Your task to perform on an android device: Open Chrome and go to settings Image 0: 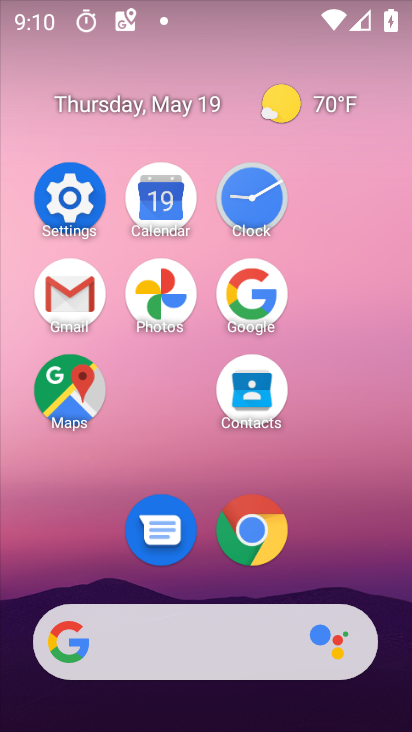
Step 0: click (275, 528)
Your task to perform on an android device: Open Chrome and go to settings Image 1: 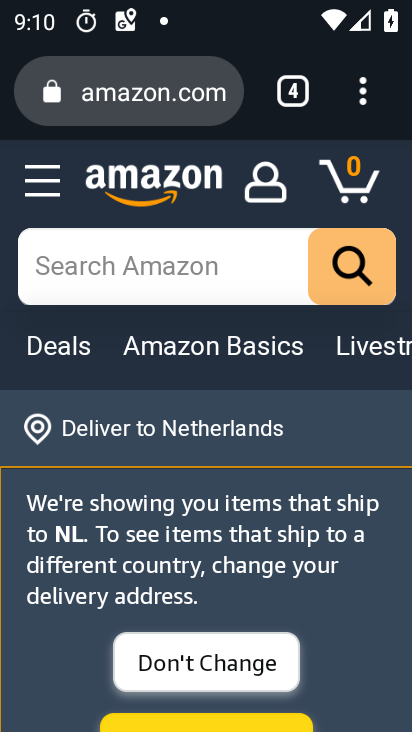
Step 1: click (369, 94)
Your task to perform on an android device: Open Chrome and go to settings Image 2: 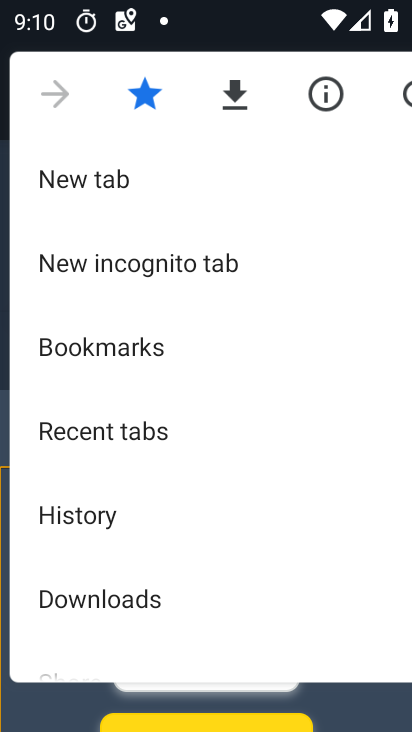
Step 2: drag from (278, 468) to (278, 142)
Your task to perform on an android device: Open Chrome and go to settings Image 3: 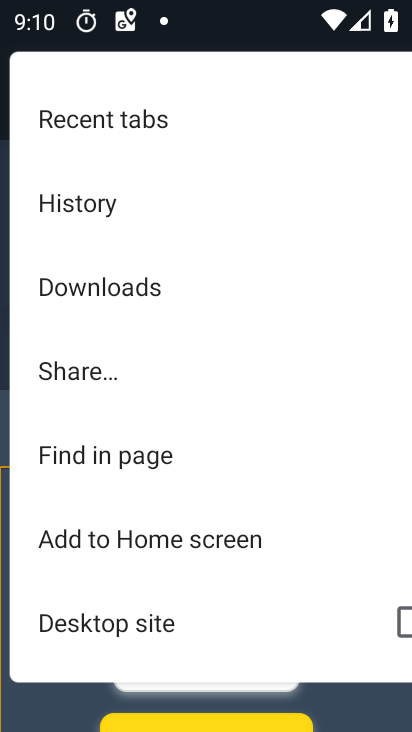
Step 3: drag from (186, 359) to (226, 130)
Your task to perform on an android device: Open Chrome and go to settings Image 4: 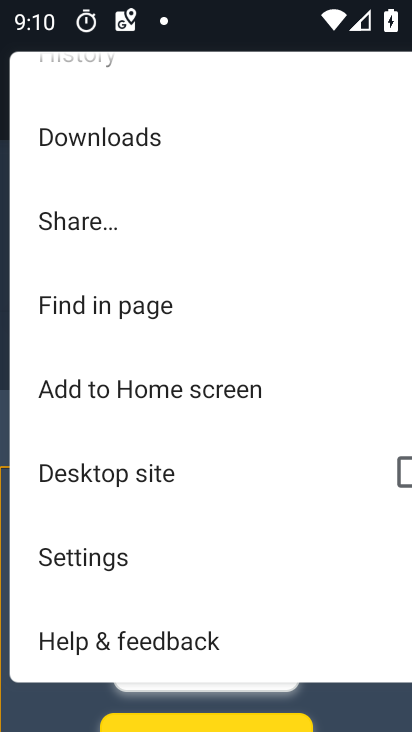
Step 4: click (124, 554)
Your task to perform on an android device: Open Chrome and go to settings Image 5: 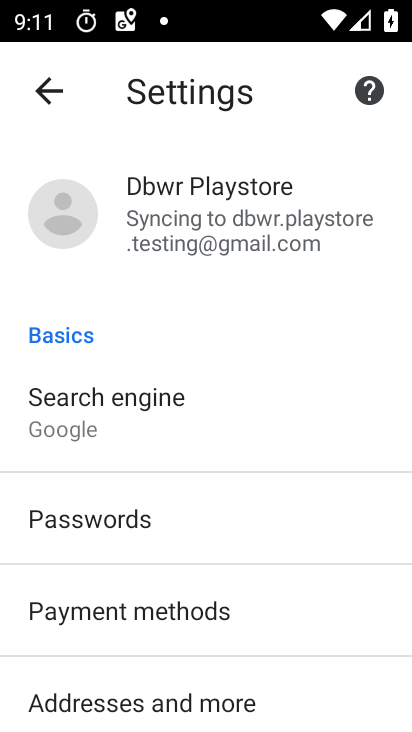
Step 5: task complete